Your task to perform on an android device: change notifications settings Image 0: 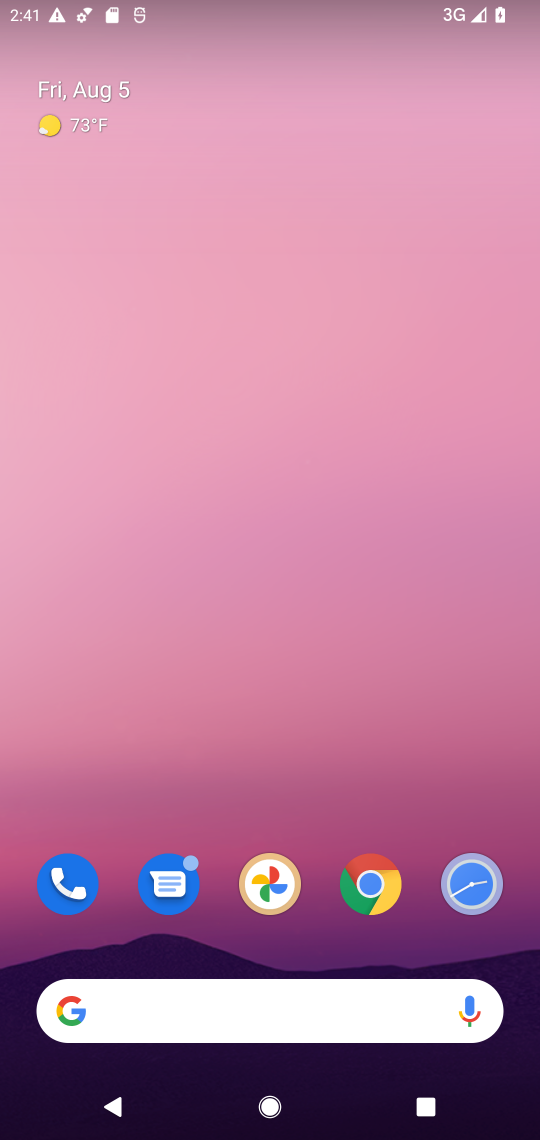
Step 0: drag from (337, 821) to (125, 35)
Your task to perform on an android device: change notifications settings Image 1: 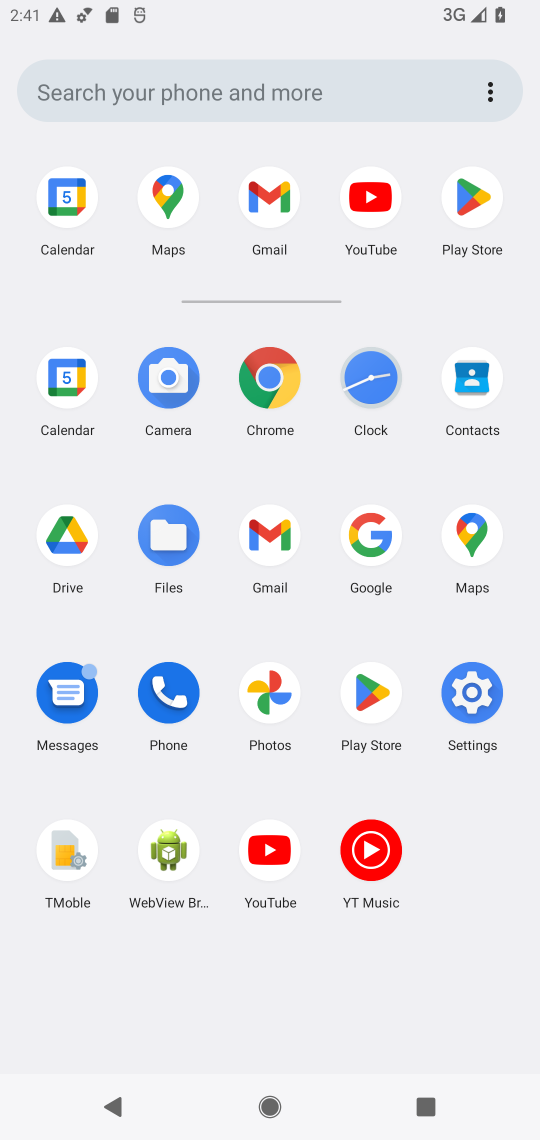
Step 1: click (479, 717)
Your task to perform on an android device: change notifications settings Image 2: 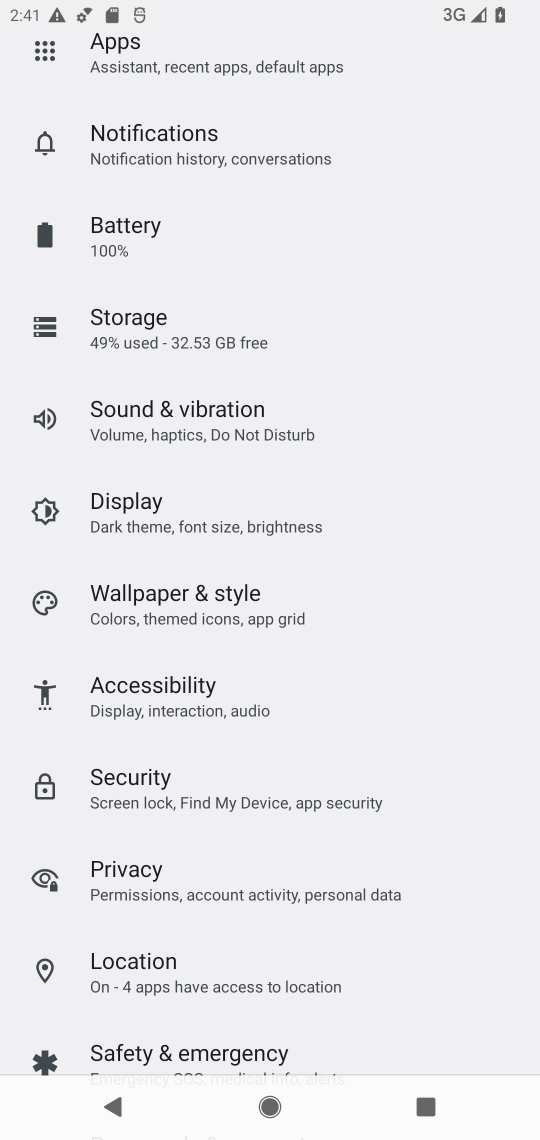
Step 2: click (193, 155)
Your task to perform on an android device: change notifications settings Image 3: 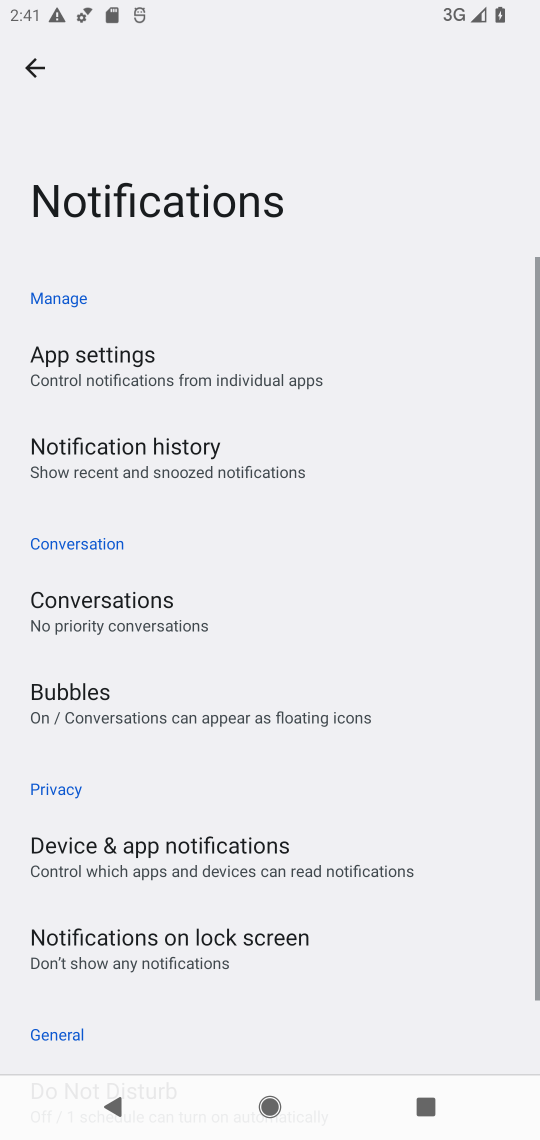
Step 3: task complete